Your task to perform on an android device: set default search engine in the chrome app Image 0: 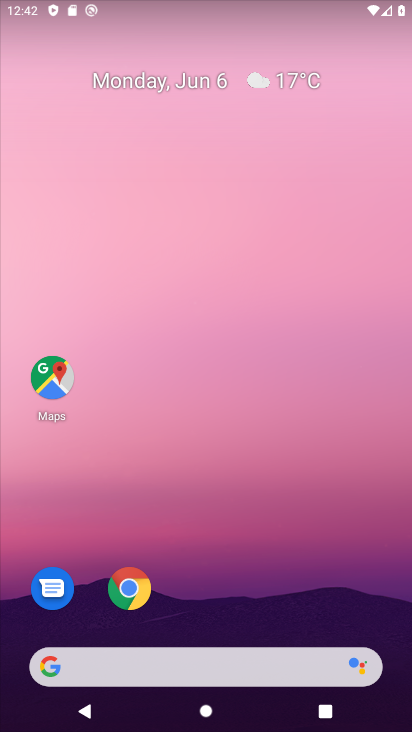
Step 0: click (129, 599)
Your task to perform on an android device: set default search engine in the chrome app Image 1: 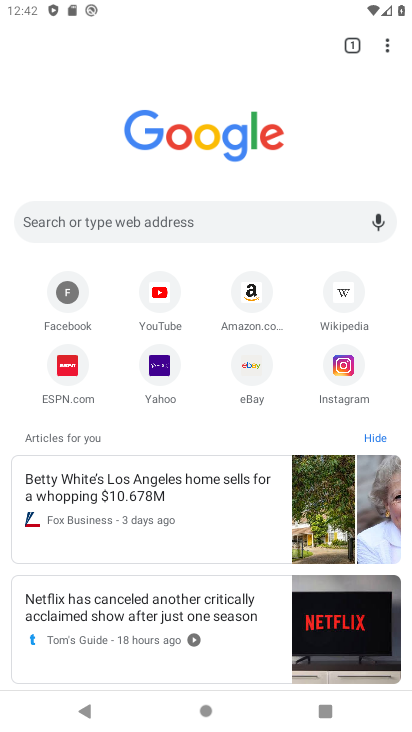
Step 1: click (392, 45)
Your task to perform on an android device: set default search engine in the chrome app Image 2: 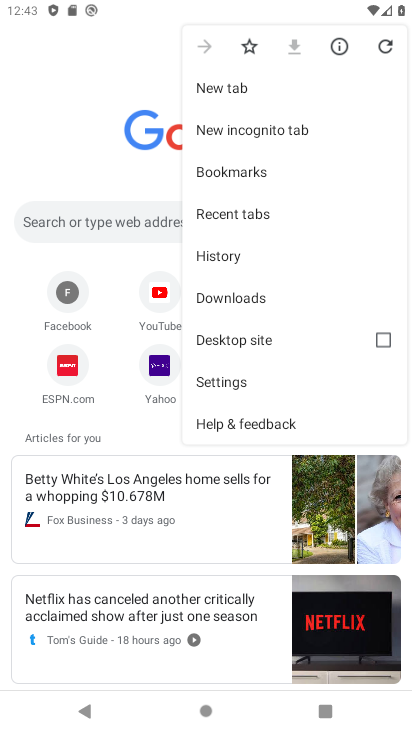
Step 2: click (241, 381)
Your task to perform on an android device: set default search engine in the chrome app Image 3: 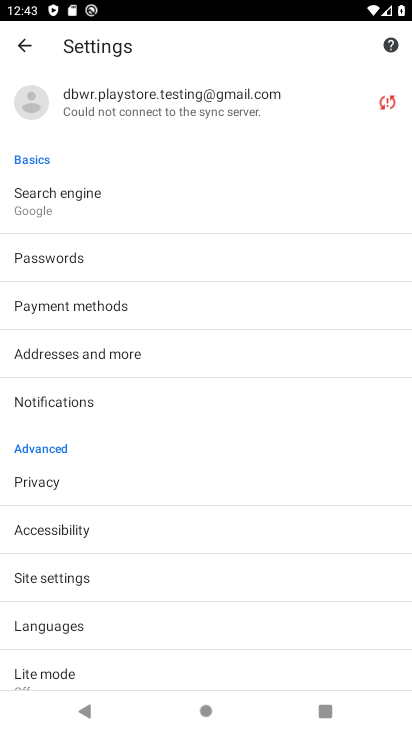
Step 3: click (92, 214)
Your task to perform on an android device: set default search engine in the chrome app Image 4: 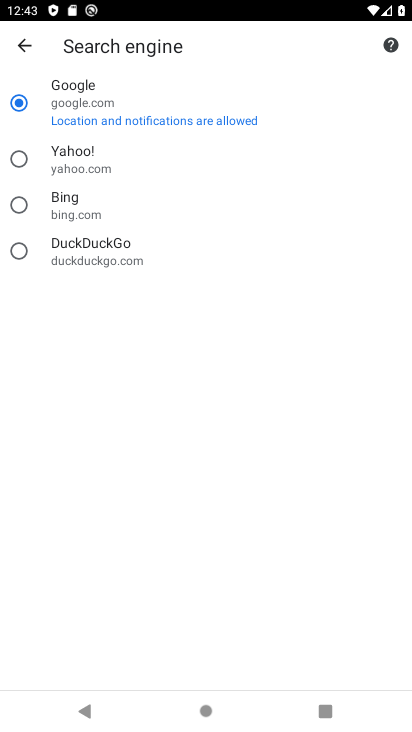
Step 4: click (70, 161)
Your task to perform on an android device: set default search engine in the chrome app Image 5: 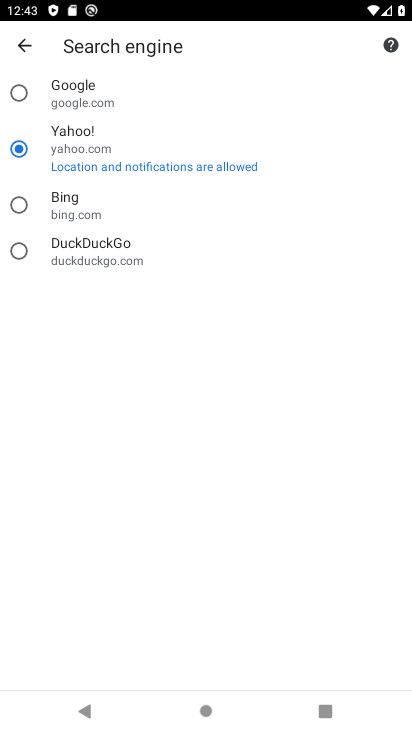
Step 5: task complete